Your task to perform on an android device: set default search engine in the chrome app Image 0: 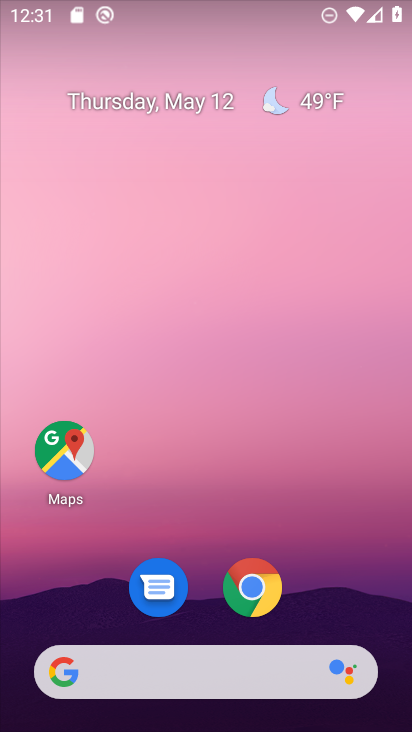
Step 0: drag from (317, 578) to (314, 337)
Your task to perform on an android device: set default search engine in the chrome app Image 1: 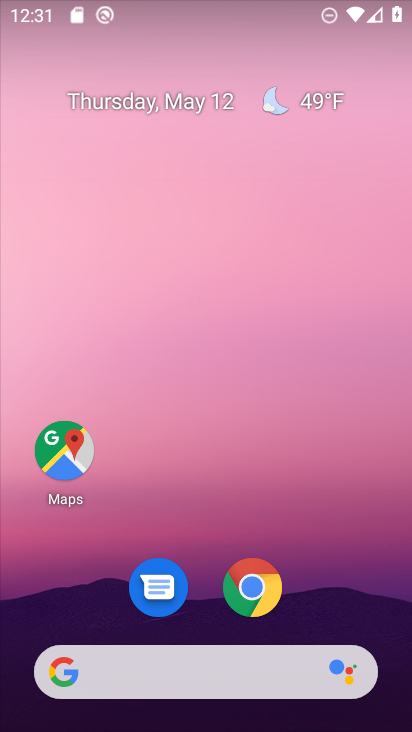
Step 1: drag from (335, 591) to (315, 266)
Your task to perform on an android device: set default search engine in the chrome app Image 2: 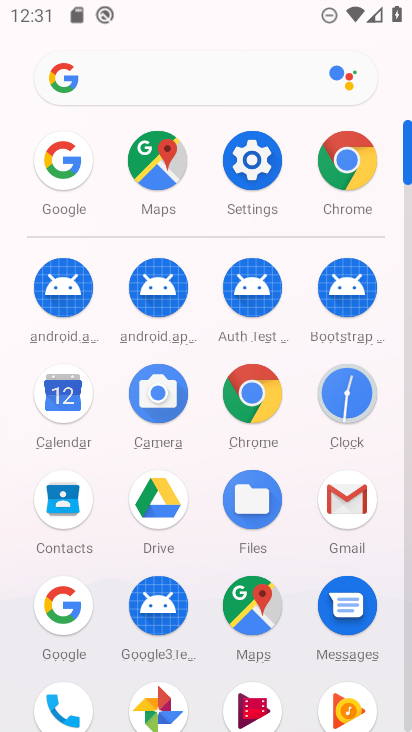
Step 2: click (352, 148)
Your task to perform on an android device: set default search engine in the chrome app Image 3: 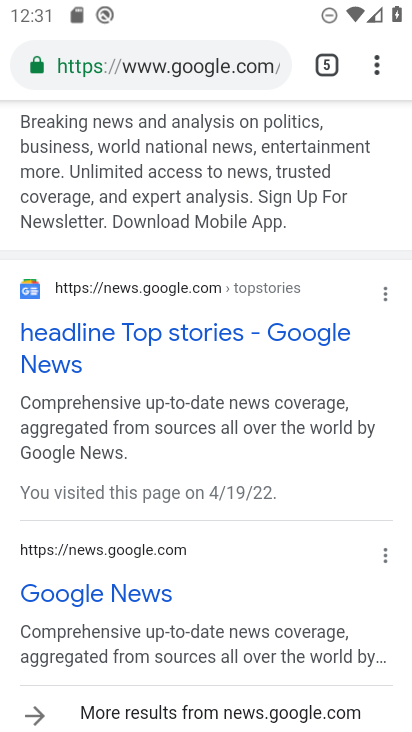
Step 3: click (360, 59)
Your task to perform on an android device: set default search engine in the chrome app Image 4: 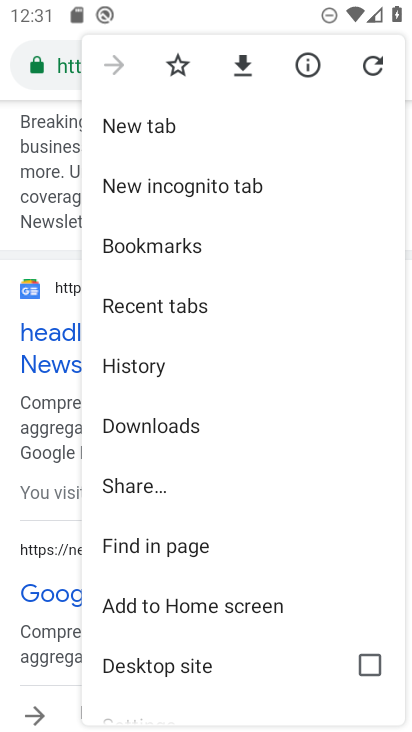
Step 4: drag from (187, 587) to (221, 361)
Your task to perform on an android device: set default search engine in the chrome app Image 5: 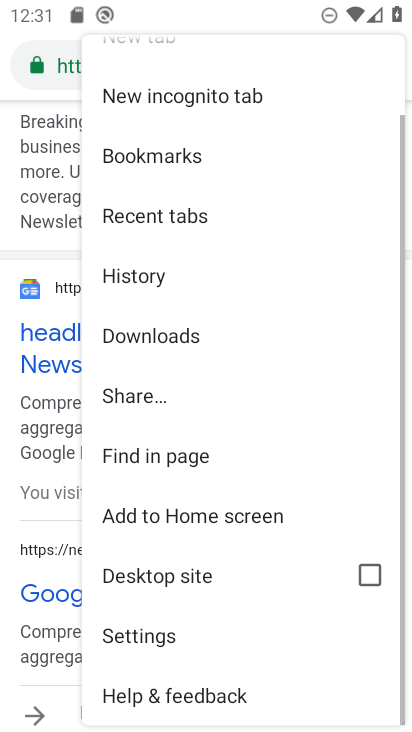
Step 5: click (161, 628)
Your task to perform on an android device: set default search engine in the chrome app Image 6: 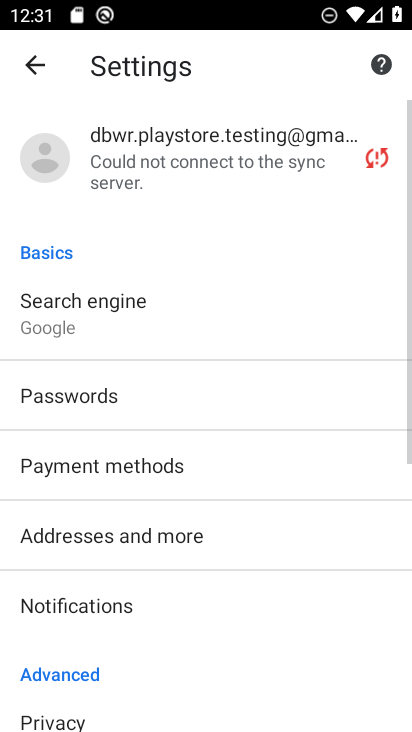
Step 6: click (56, 338)
Your task to perform on an android device: set default search engine in the chrome app Image 7: 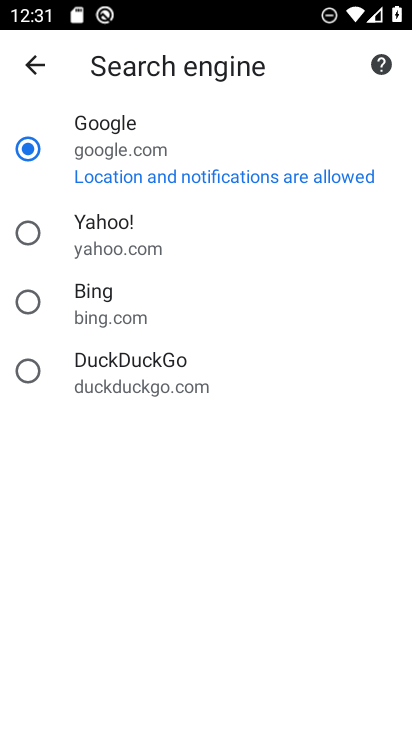
Step 7: click (85, 275)
Your task to perform on an android device: set default search engine in the chrome app Image 8: 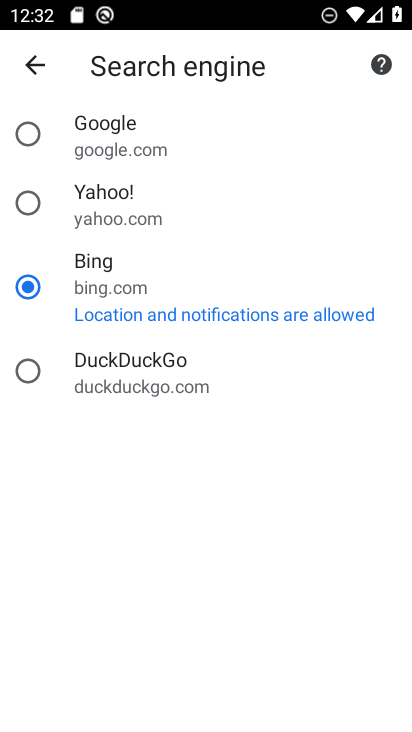
Step 8: task complete